Your task to perform on an android device: Go to battery settings Image 0: 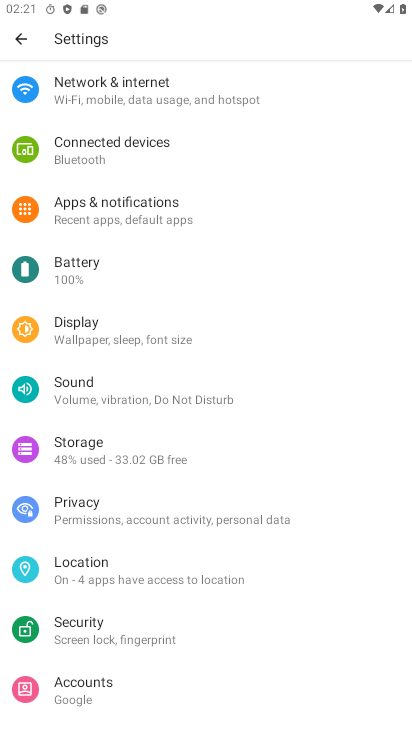
Step 0: click (84, 278)
Your task to perform on an android device: Go to battery settings Image 1: 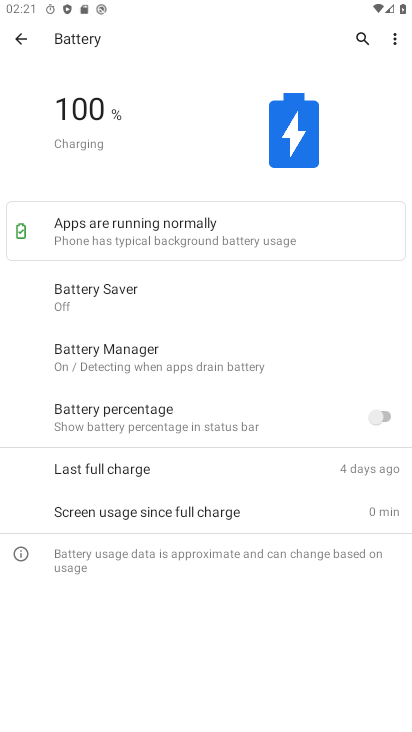
Step 1: task complete